Your task to perform on an android device: Open CNN.com Image 0: 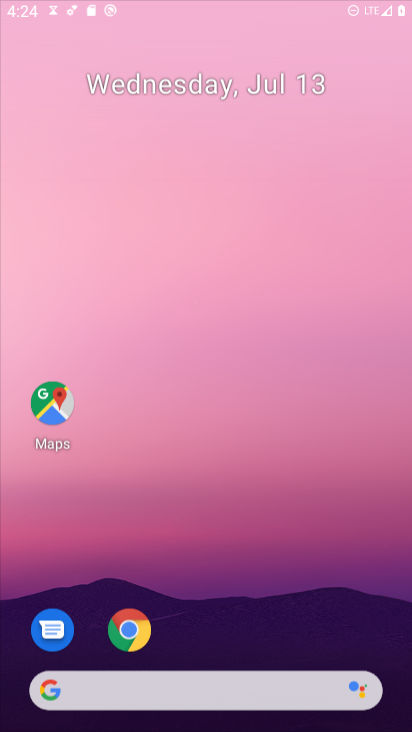
Step 0: press home button
Your task to perform on an android device: Open CNN.com Image 1: 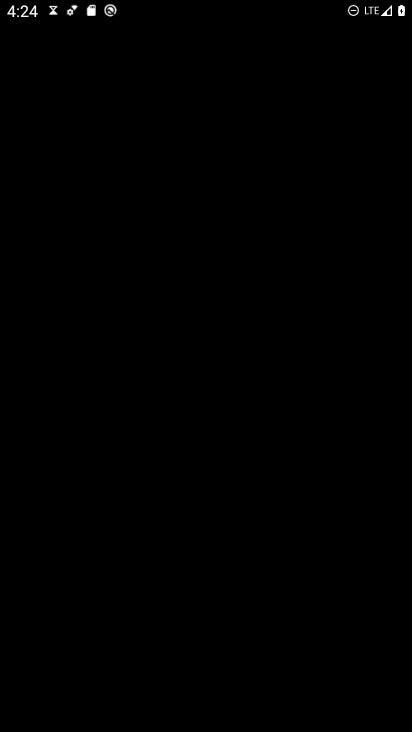
Step 1: drag from (306, 636) to (320, 174)
Your task to perform on an android device: Open CNN.com Image 2: 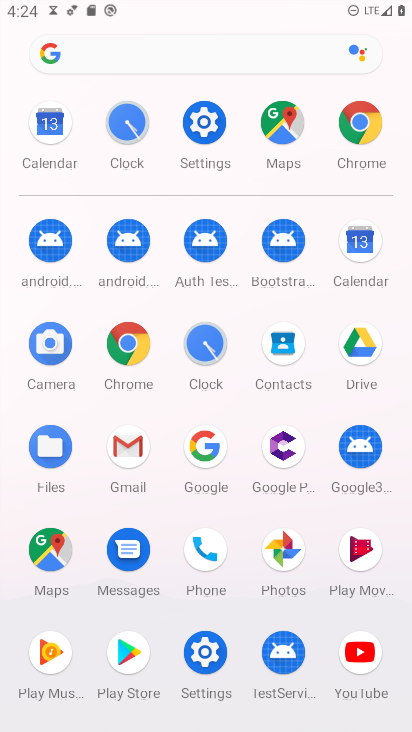
Step 2: click (203, 439)
Your task to perform on an android device: Open CNN.com Image 3: 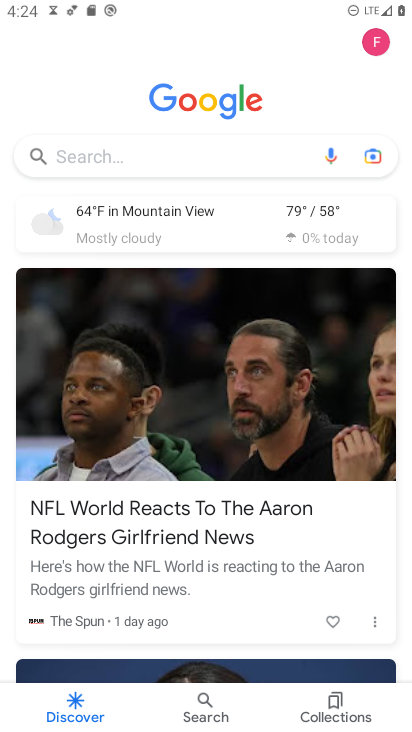
Step 3: click (101, 160)
Your task to perform on an android device: Open CNN.com Image 4: 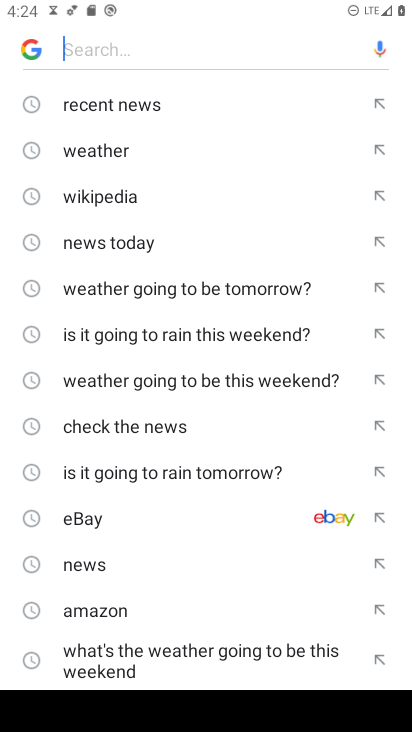
Step 4: type "CNN.com"
Your task to perform on an android device: Open CNN.com Image 5: 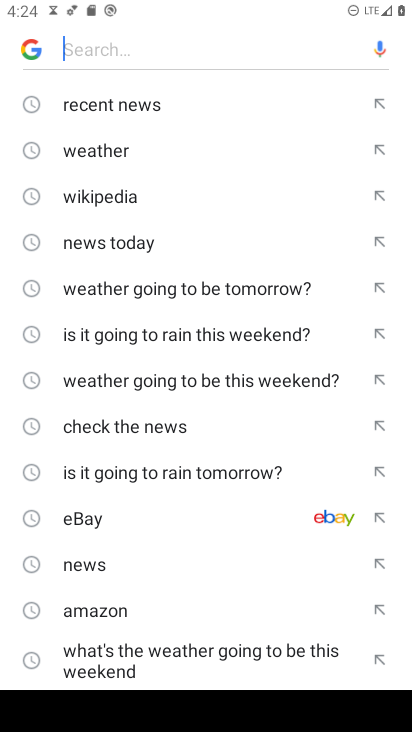
Step 5: click (82, 52)
Your task to perform on an android device: Open CNN.com Image 6: 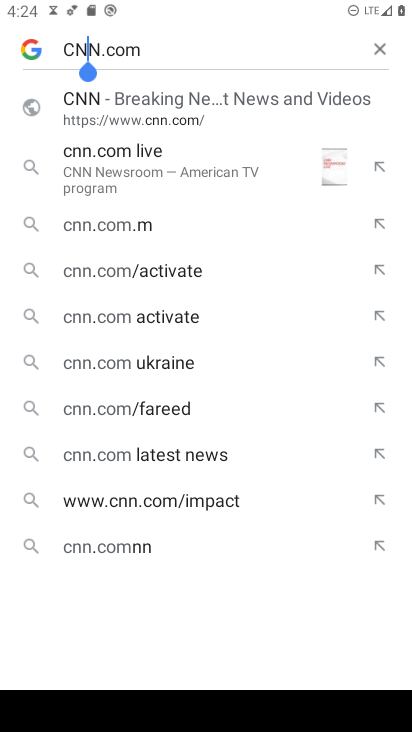
Step 6: press enter
Your task to perform on an android device: Open CNN.com Image 7: 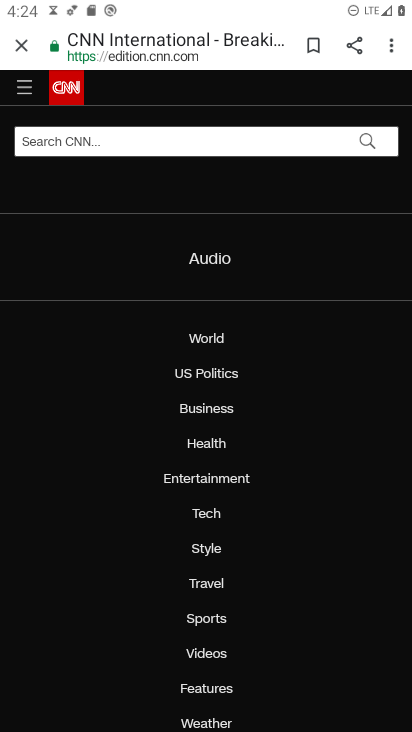
Step 7: task complete